Your task to perform on an android device: turn on bluetooth scan Image 0: 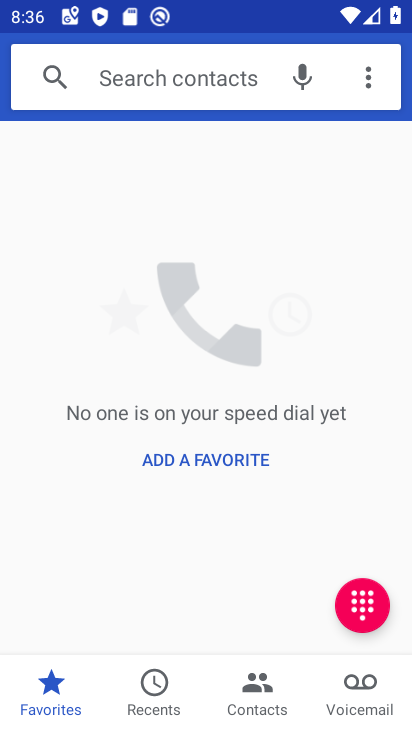
Step 0: press home button
Your task to perform on an android device: turn on bluetooth scan Image 1: 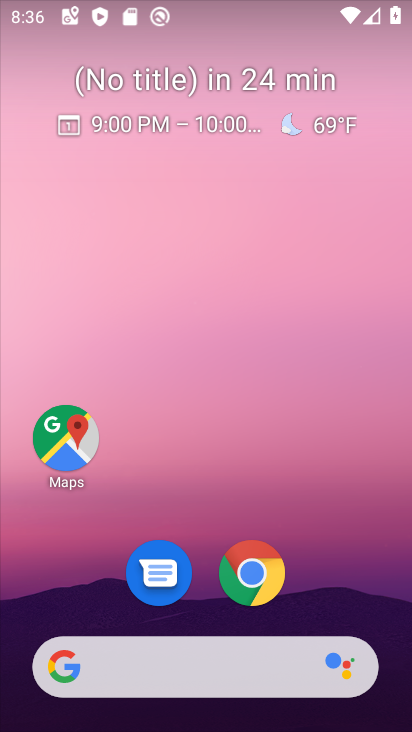
Step 1: drag from (186, 558) to (294, 15)
Your task to perform on an android device: turn on bluetooth scan Image 2: 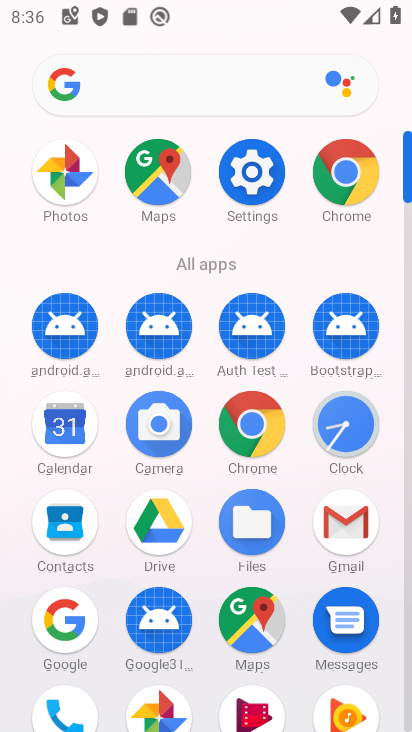
Step 2: click (256, 180)
Your task to perform on an android device: turn on bluetooth scan Image 3: 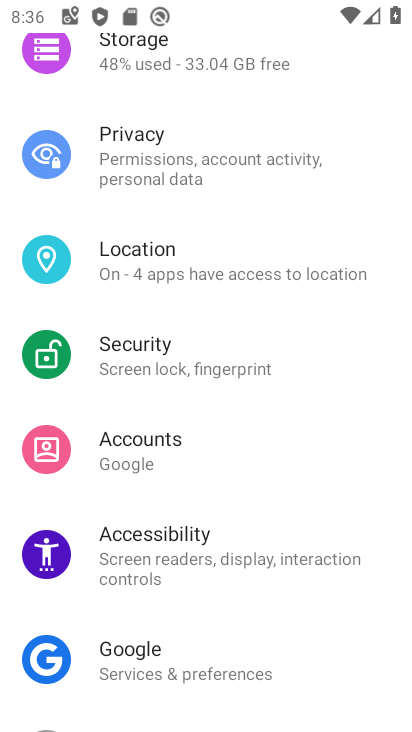
Step 3: click (163, 279)
Your task to perform on an android device: turn on bluetooth scan Image 4: 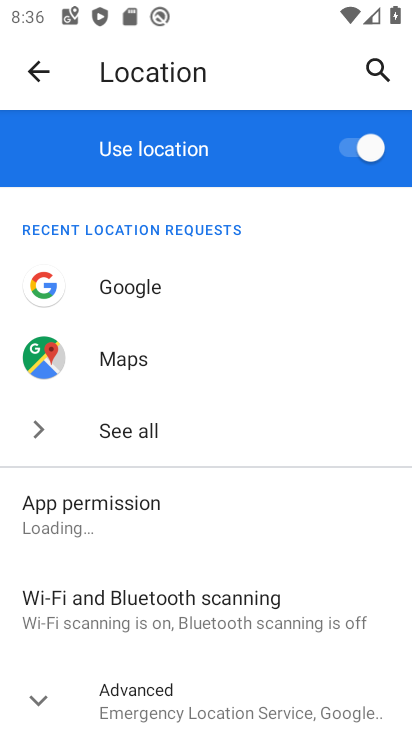
Step 4: drag from (185, 516) to (190, 357)
Your task to perform on an android device: turn on bluetooth scan Image 5: 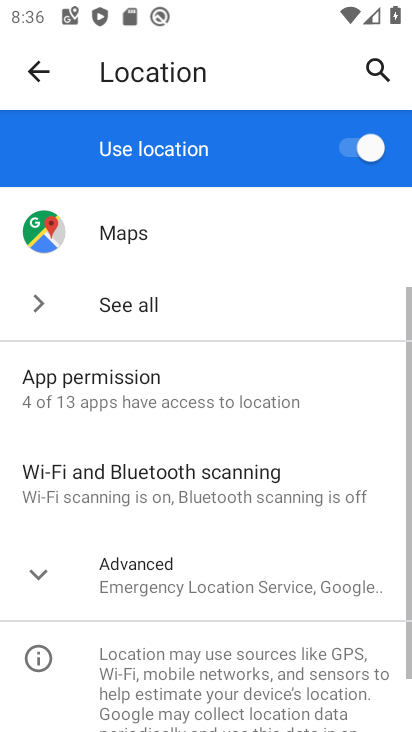
Step 5: click (186, 488)
Your task to perform on an android device: turn on bluetooth scan Image 6: 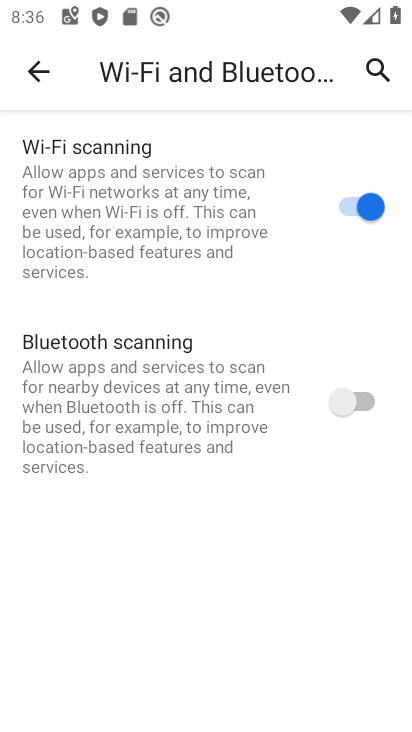
Step 6: click (318, 416)
Your task to perform on an android device: turn on bluetooth scan Image 7: 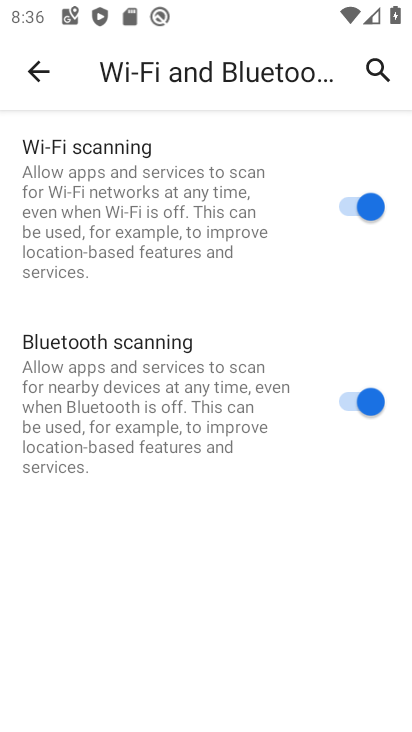
Step 7: task complete